Your task to perform on an android device: snooze an email in the gmail app Image 0: 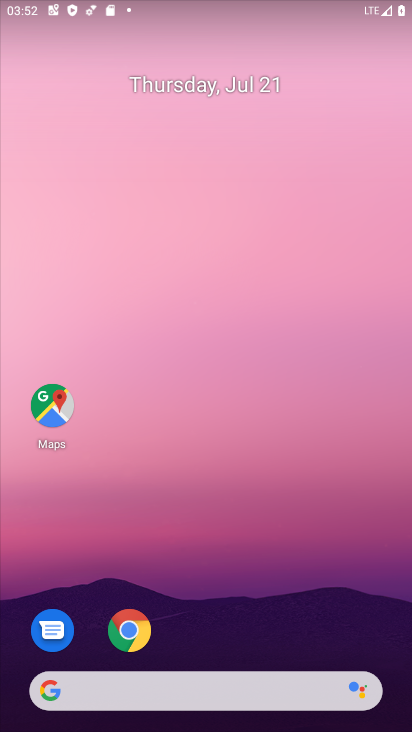
Step 0: drag from (199, 642) to (254, 155)
Your task to perform on an android device: snooze an email in the gmail app Image 1: 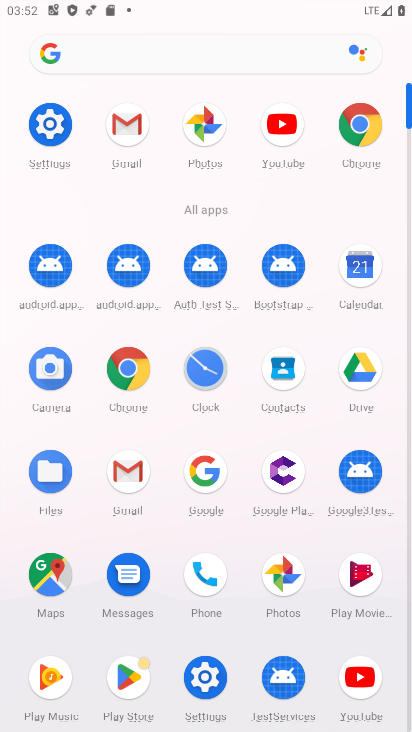
Step 1: click (105, 129)
Your task to perform on an android device: snooze an email in the gmail app Image 2: 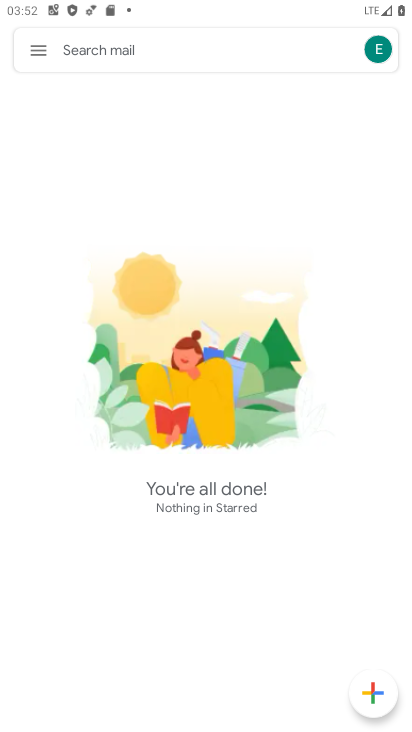
Step 2: task complete